Your task to perform on an android device: manage bookmarks in the chrome app Image 0: 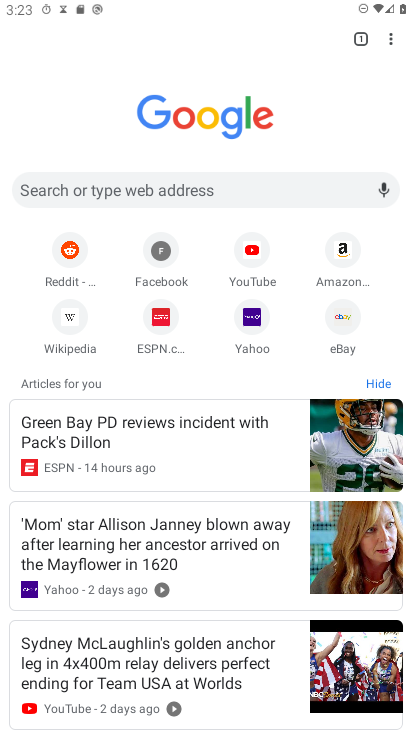
Step 0: press home button
Your task to perform on an android device: manage bookmarks in the chrome app Image 1: 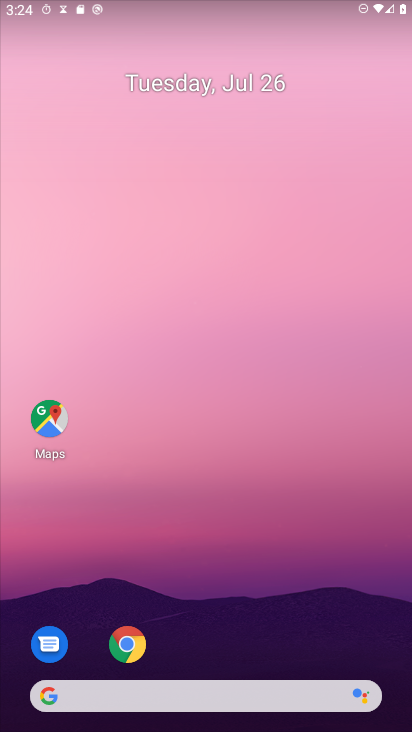
Step 1: click (132, 647)
Your task to perform on an android device: manage bookmarks in the chrome app Image 2: 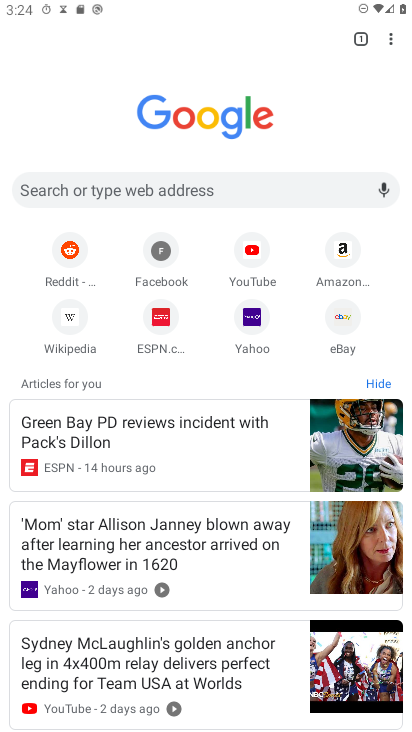
Step 2: task complete